Your task to perform on an android device: Add "razer thresher" to the cart on walmart, then select checkout. Image 0: 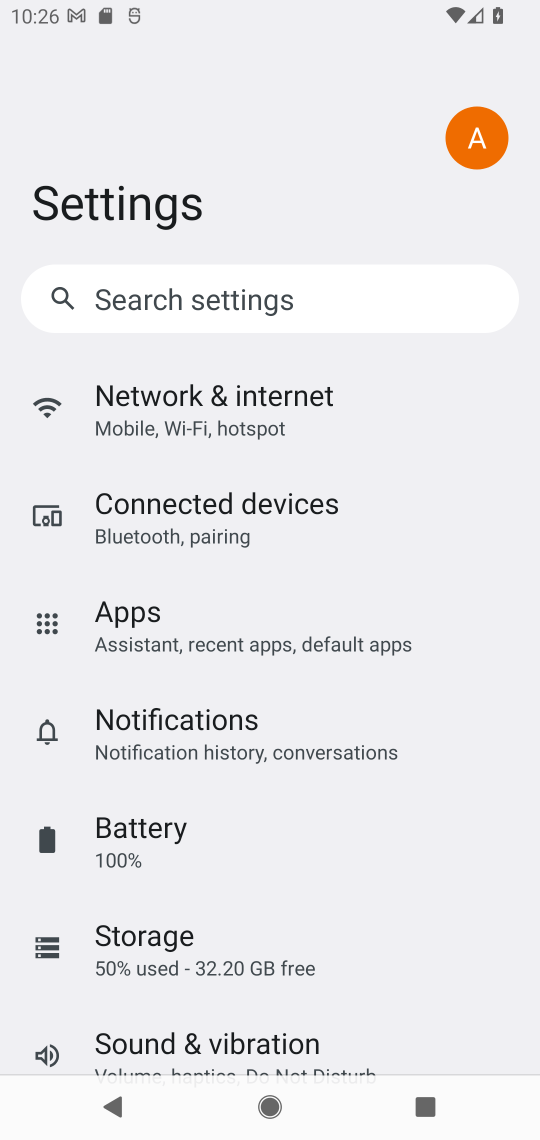
Step 0: press home button
Your task to perform on an android device: Add "razer thresher" to the cart on walmart, then select checkout. Image 1: 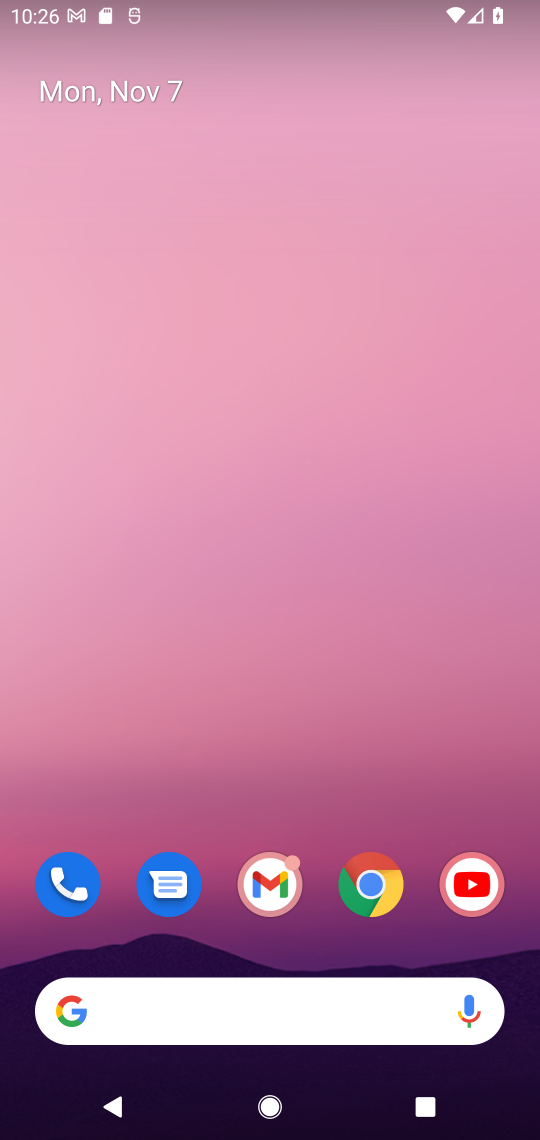
Step 1: click (387, 873)
Your task to perform on an android device: Add "razer thresher" to the cart on walmart, then select checkout. Image 2: 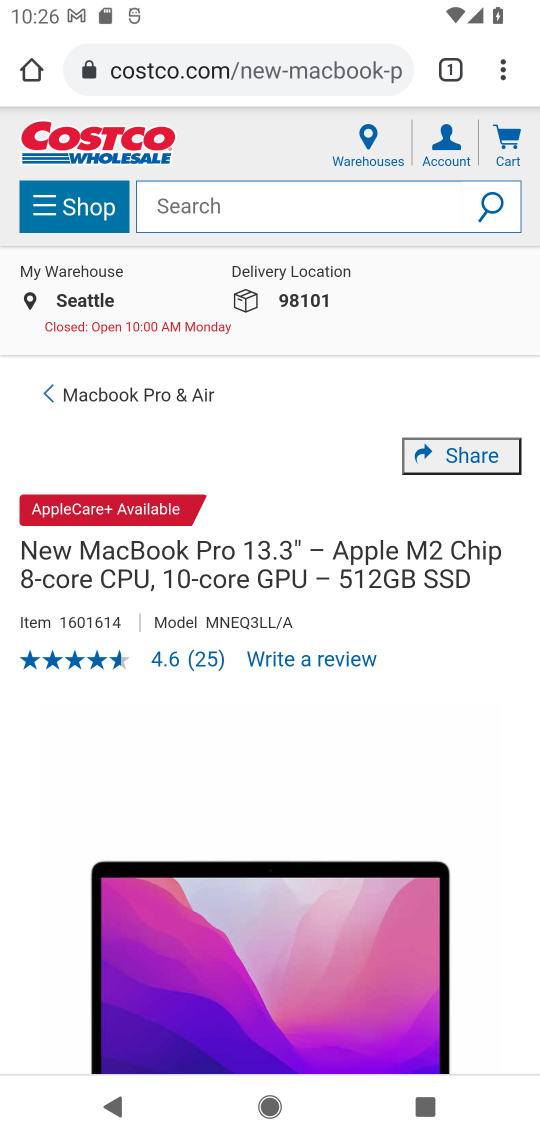
Step 2: click (347, 74)
Your task to perform on an android device: Add "razer thresher" to the cart on walmart, then select checkout. Image 3: 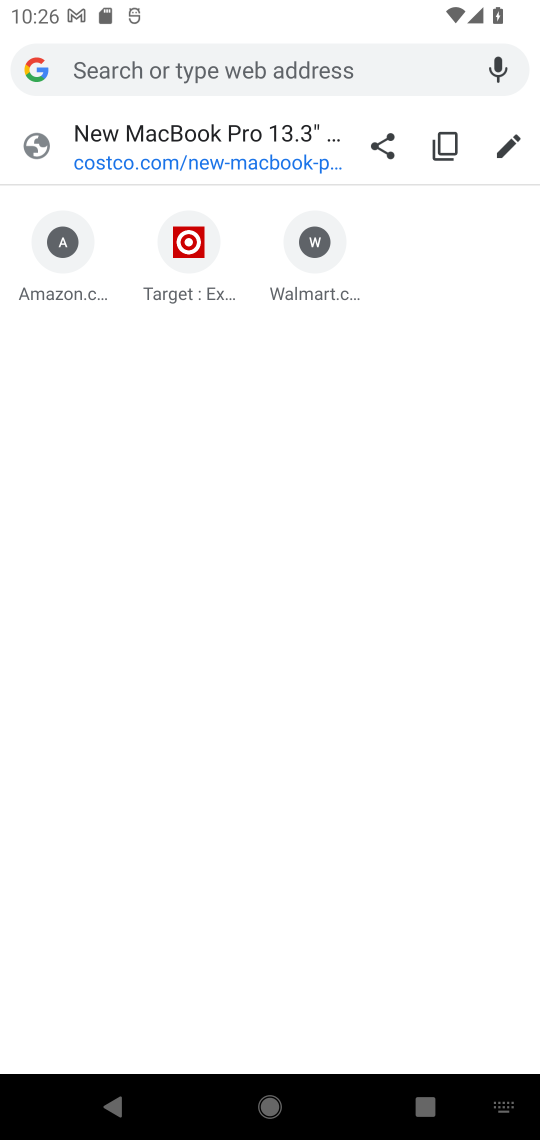
Step 3: click (306, 263)
Your task to perform on an android device: Add "razer thresher" to the cart on walmart, then select checkout. Image 4: 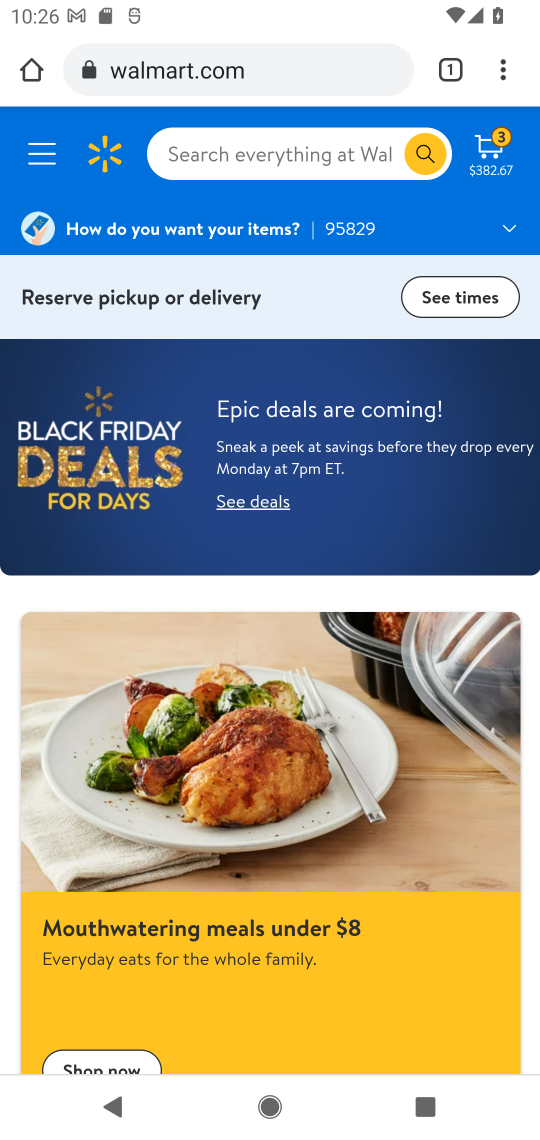
Step 4: click (294, 146)
Your task to perform on an android device: Add "razer thresher" to the cart on walmart, then select checkout. Image 5: 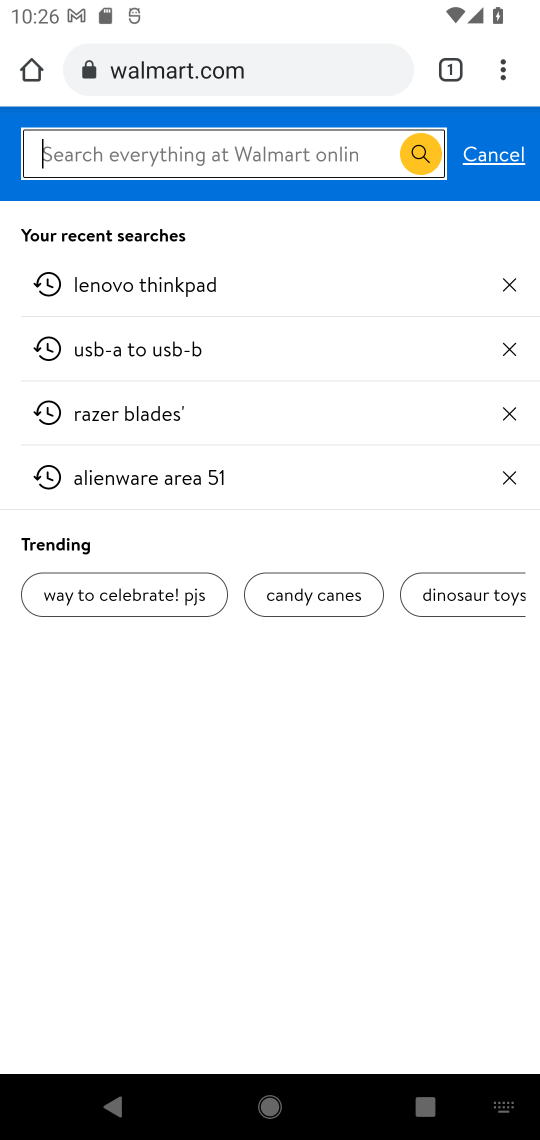
Step 5: type "razer thresher"
Your task to perform on an android device: Add "razer thresher" to the cart on walmart, then select checkout. Image 6: 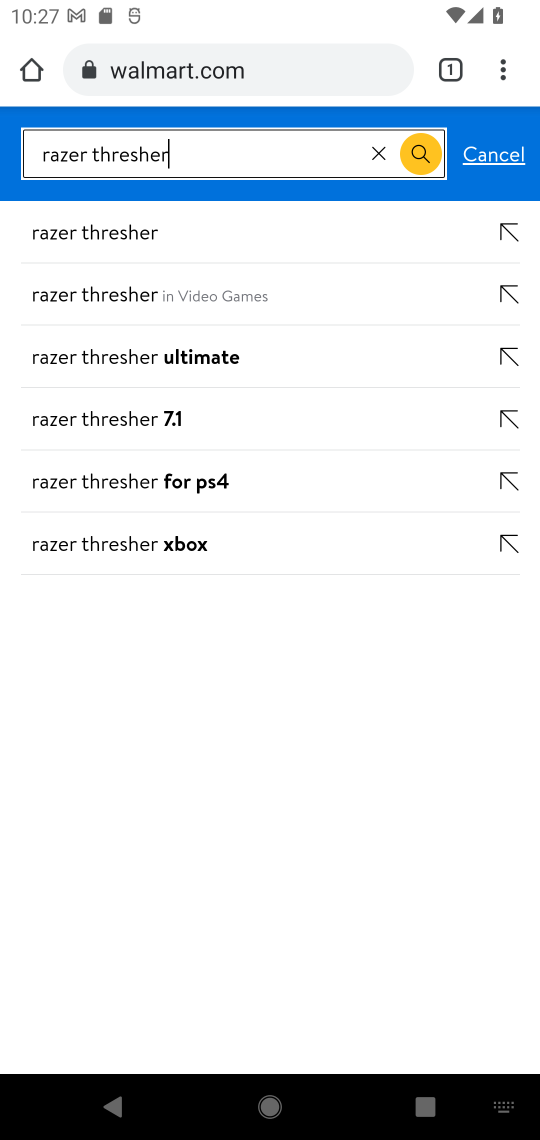
Step 6: click (104, 225)
Your task to perform on an android device: Add "razer thresher" to the cart on walmart, then select checkout. Image 7: 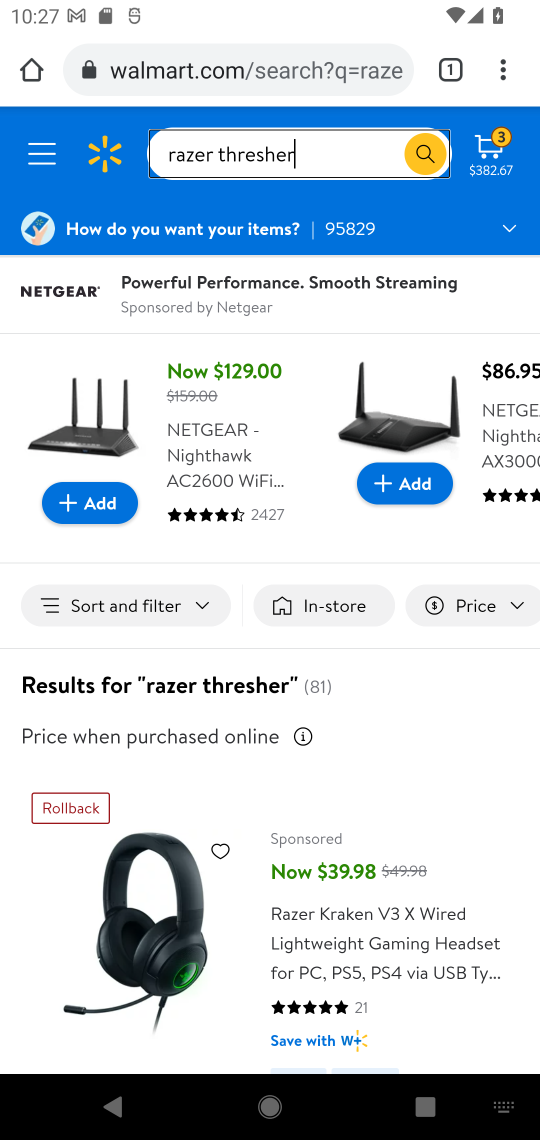
Step 7: click (110, 926)
Your task to perform on an android device: Add "razer thresher" to the cart on walmart, then select checkout. Image 8: 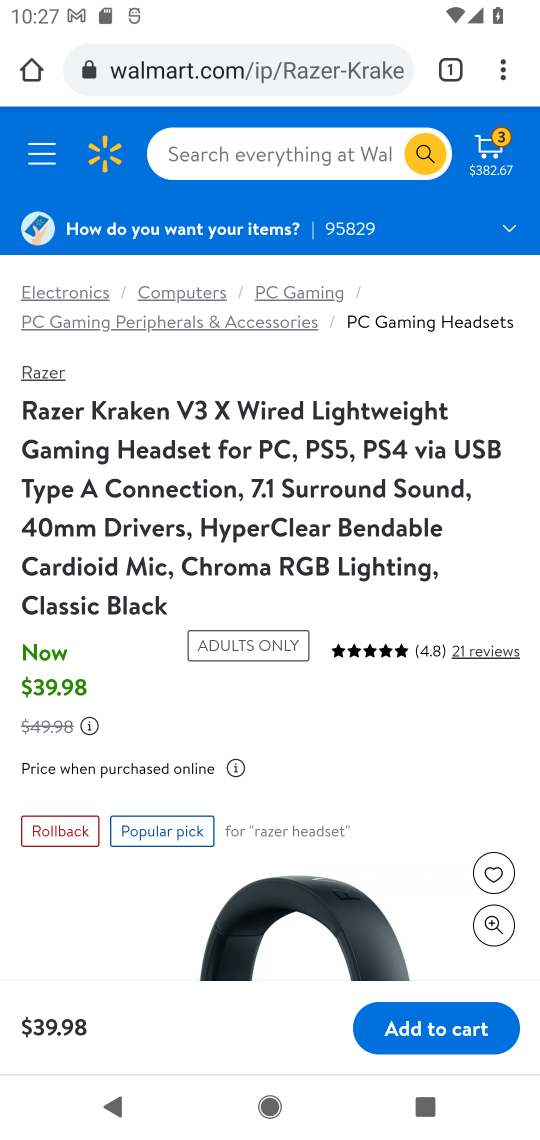
Step 8: click (420, 1027)
Your task to perform on an android device: Add "razer thresher" to the cart on walmart, then select checkout. Image 9: 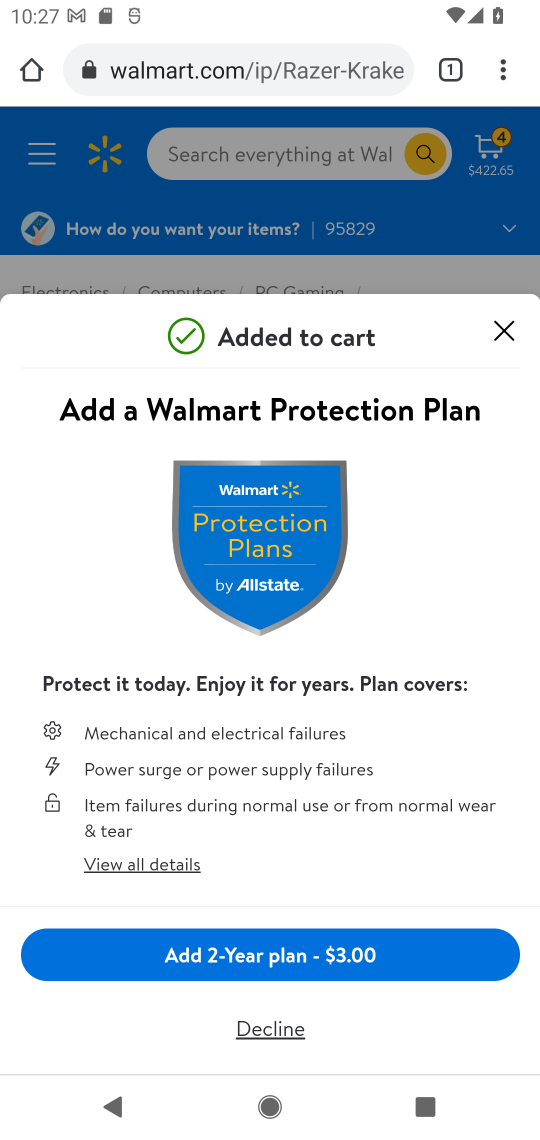
Step 9: click (504, 318)
Your task to perform on an android device: Add "razer thresher" to the cart on walmart, then select checkout. Image 10: 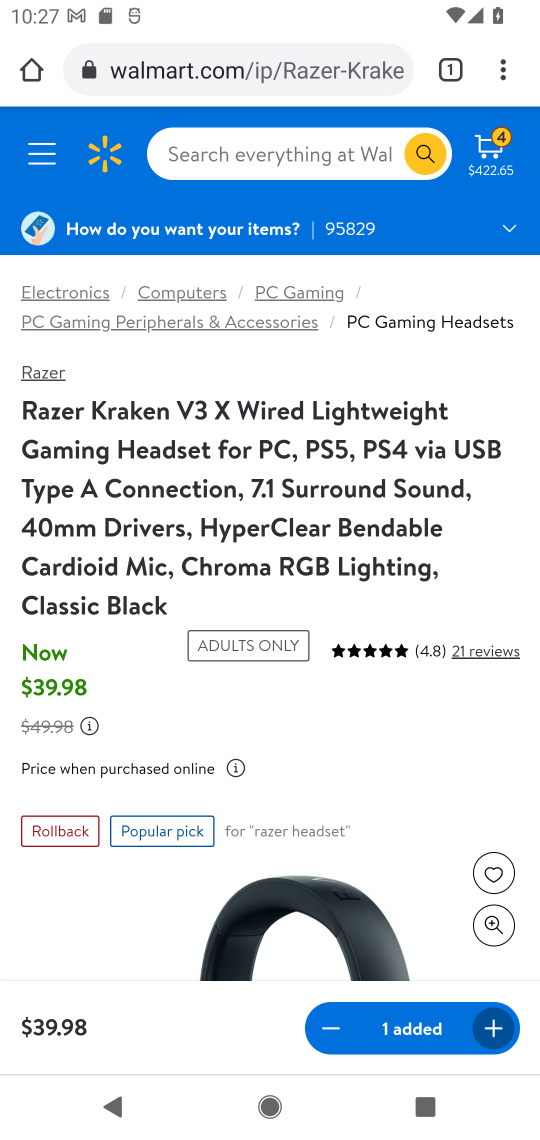
Step 10: click (487, 167)
Your task to perform on an android device: Add "razer thresher" to the cart on walmart, then select checkout. Image 11: 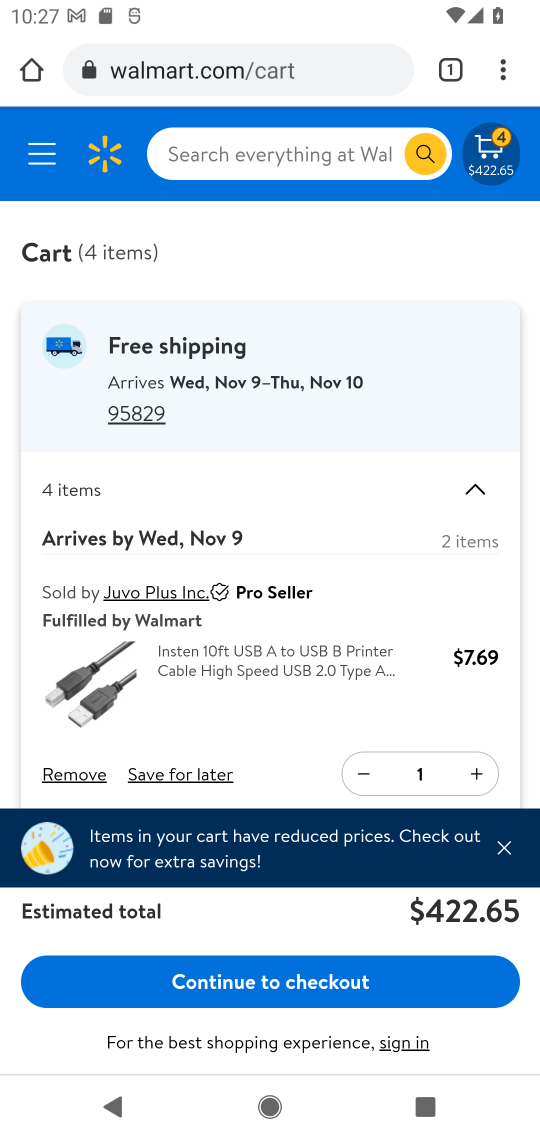
Step 11: click (300, 975)
Your task to perform on an android device: Add "razer thresher" to the cart on walmart, then select checkout. Image 12: 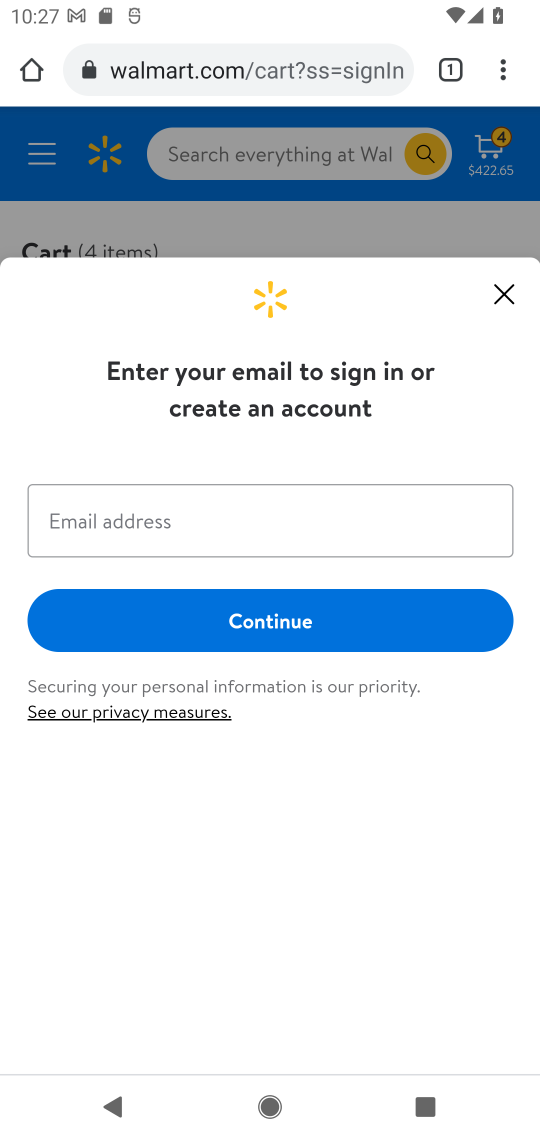
Step 12: task complete